Your task to perform on an android device: What's the weather going to be this weekend? Image 0: 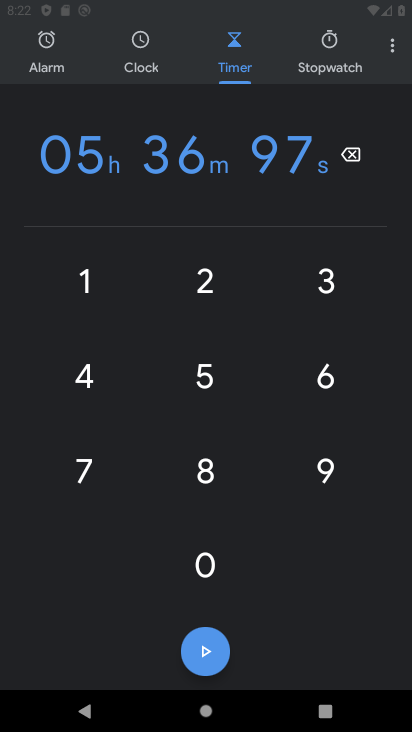
Step 0: press home button
Your task to perform on an android device: What's the weather going to be this weekend? Image 1: 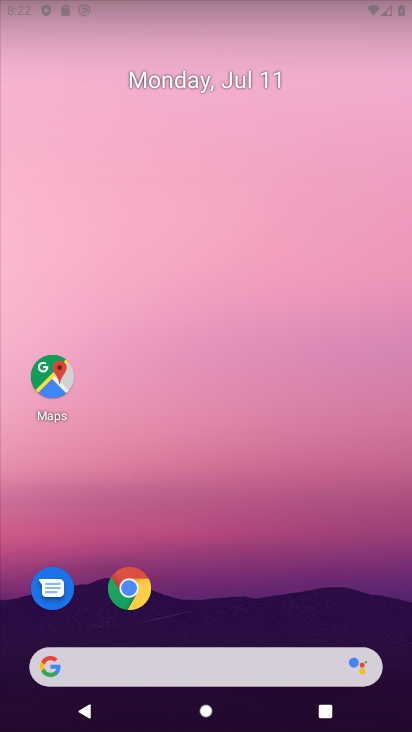
Step 1: click (183, 662)
Your task to perform on an android device: What's the weather going to be this weekend? Image 2: 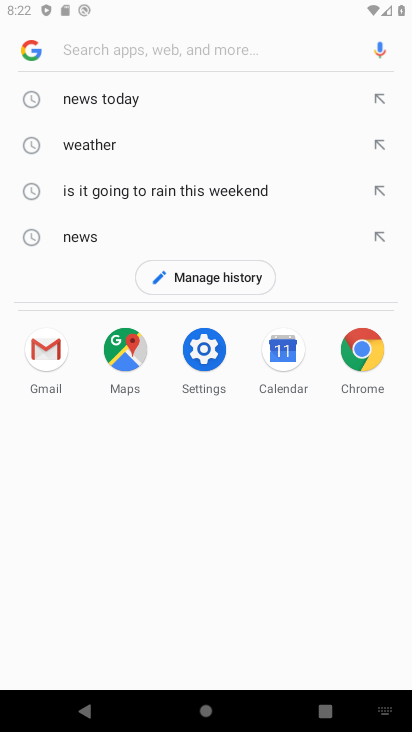
Step 2: type "What's the weather going to be this weekend?"
Your task to perform on an android device: What's the weather going to be this weekend? Image 3: 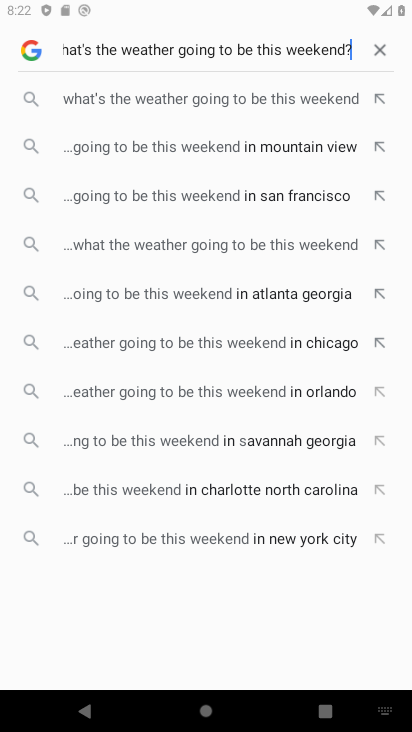
Step 3: press enter
Your task to perform on an android device: What's the weather going to be this weekend? Image 4: 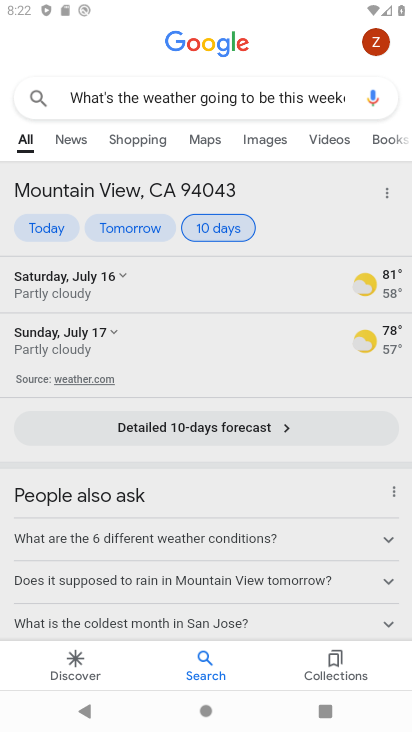
Step 4: task complete